Your task to perform on an android device: allow cookies in the chrome app Image 0: 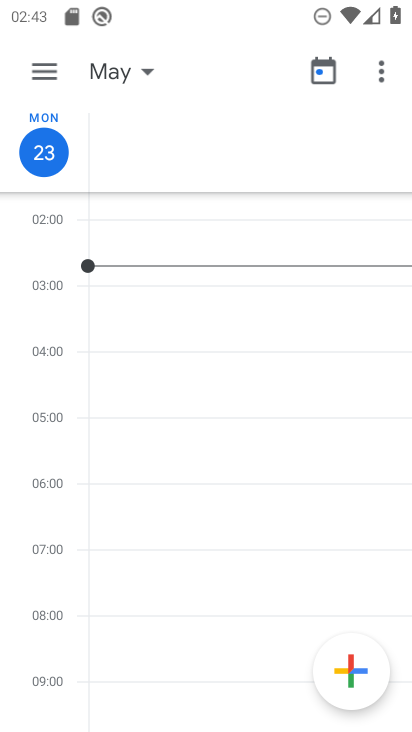
Step 0: press home button
Your task to perform on an android device: allow cookies in the chrome app Image 1: 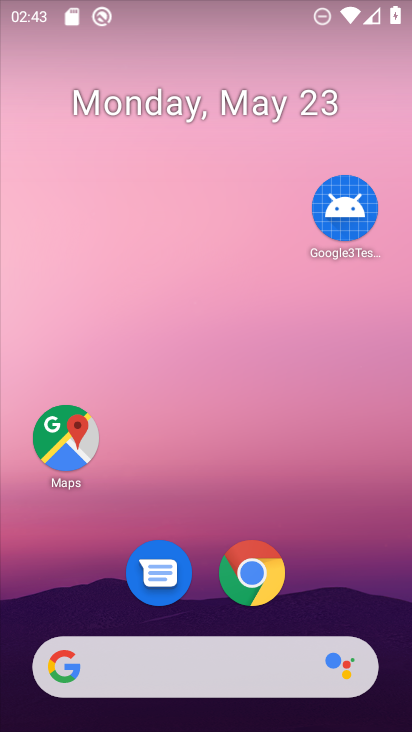
Step 1: click (249, 572)
Your task to perform on an android device: allow cookies in the chrome app Image 2: 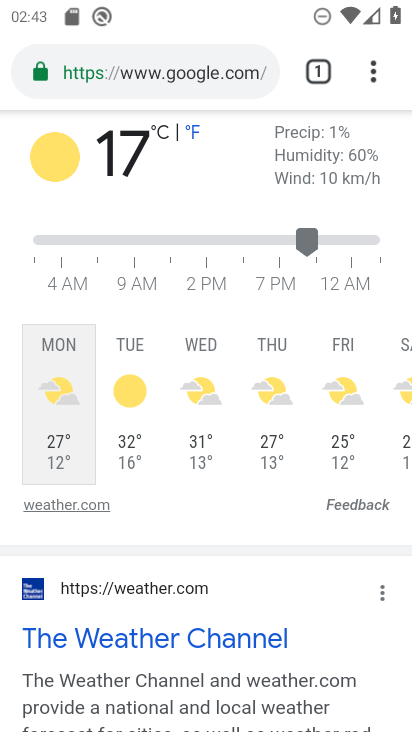
Step 2: drag from (377, 63) to (174, 579)
Your task to perform on an android device: allow cookies in the chrome app Image 3: 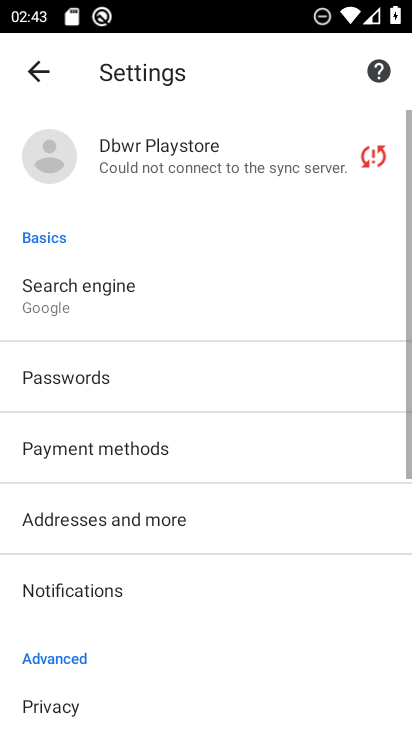
Step 3: drag from (198, 580) to (284, 195)
Your task to perform on an android device: allow cookies in the chrome app Image 4: 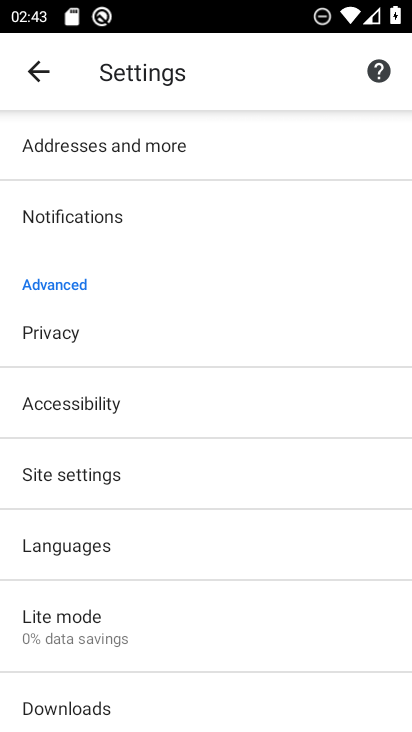
Step 4: click (168, 464)
Your task to perform on an android device: allow cookies in the chrome app Image 5: 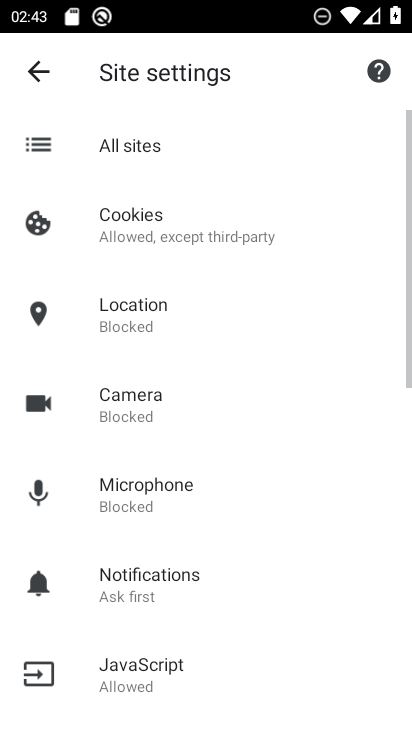
Step 5: click (220, 225)
Your task to perform on an android device: allow cookies in the chrome app Image 6: 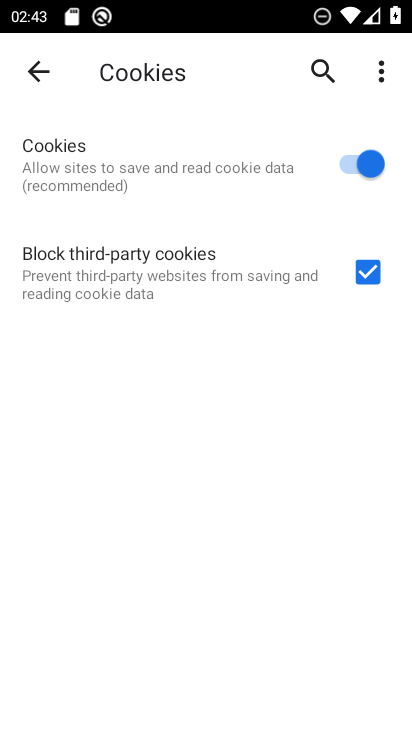
Step 6: task complete